Your task to perform on an android device: turn on wifi Image 0: 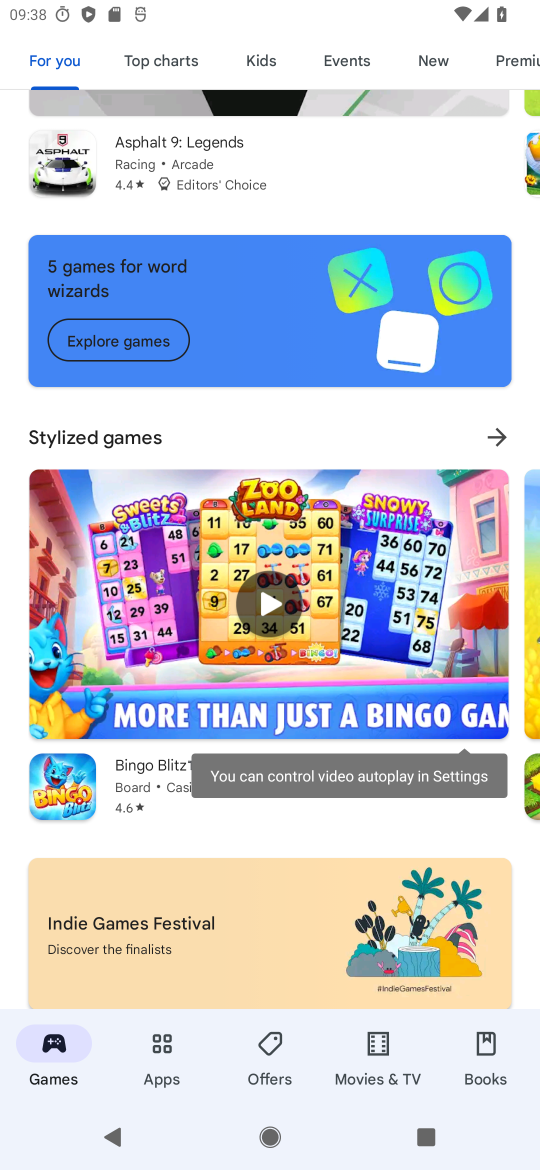
Step 0: press home button
Your task to perform on an android device: turn on wifi Image 1: 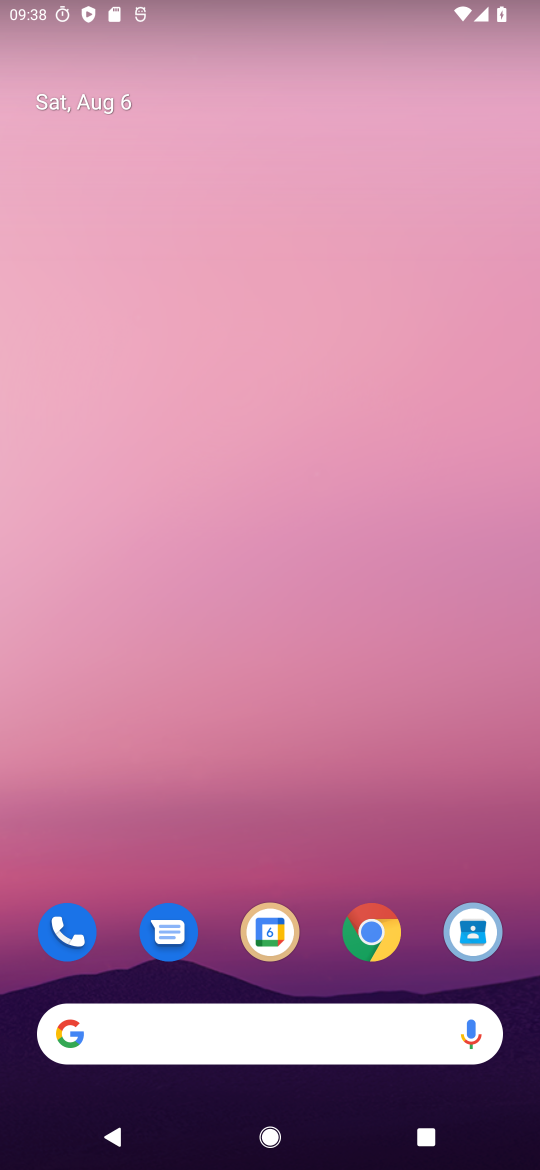
Step 1: drag from (166, 1033) to (382, 159)
Your task to perform on an android device: turn on wifi Image 2: 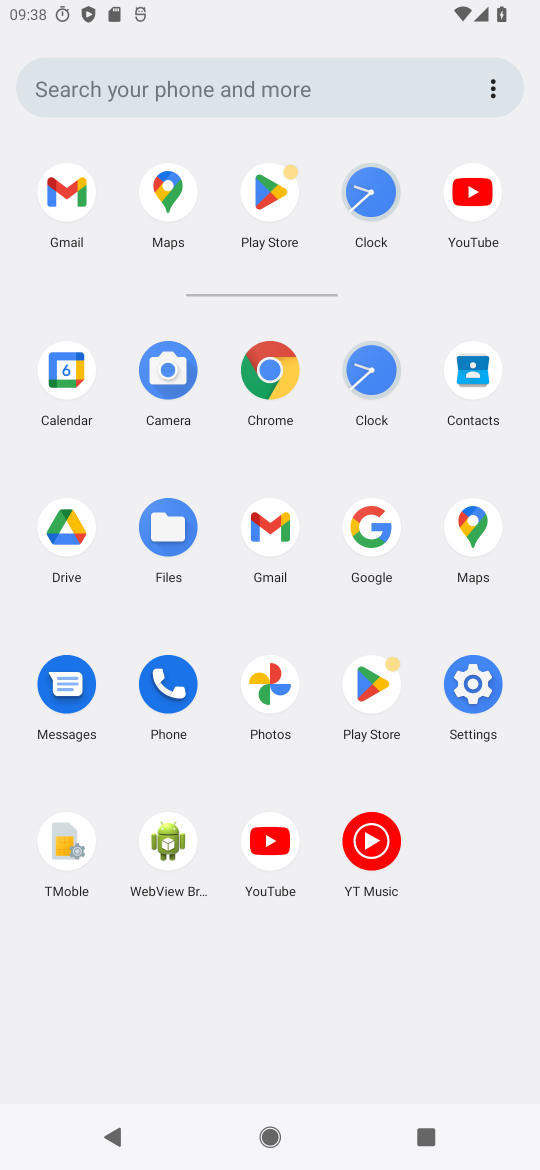
Step 2: click (468, 686)
Your task to perform on an android device: turn on wifi Image 3: 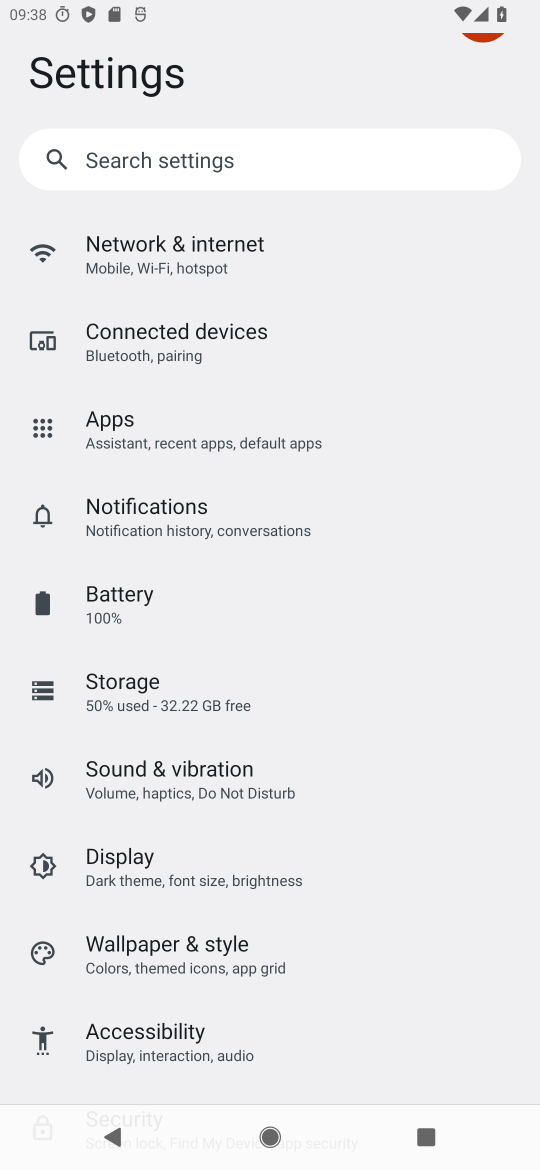
Step 3: click (251, 244)
Your task to perform on an android device: turn on wifi Image 4: 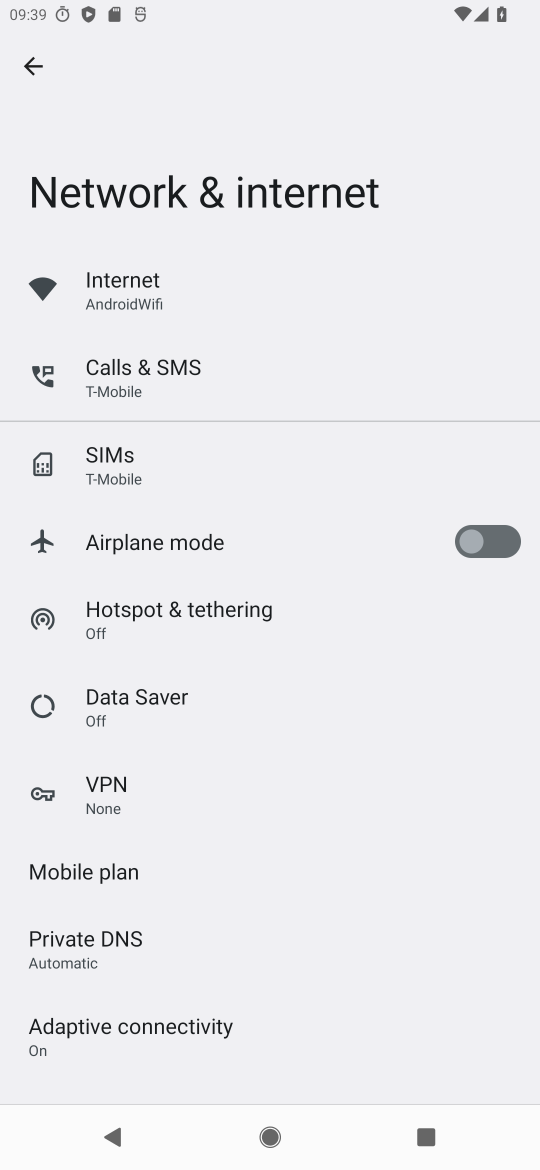
Step 4: click (184, 291)
Your task to perform on an android device: turn on wifi Image 5: 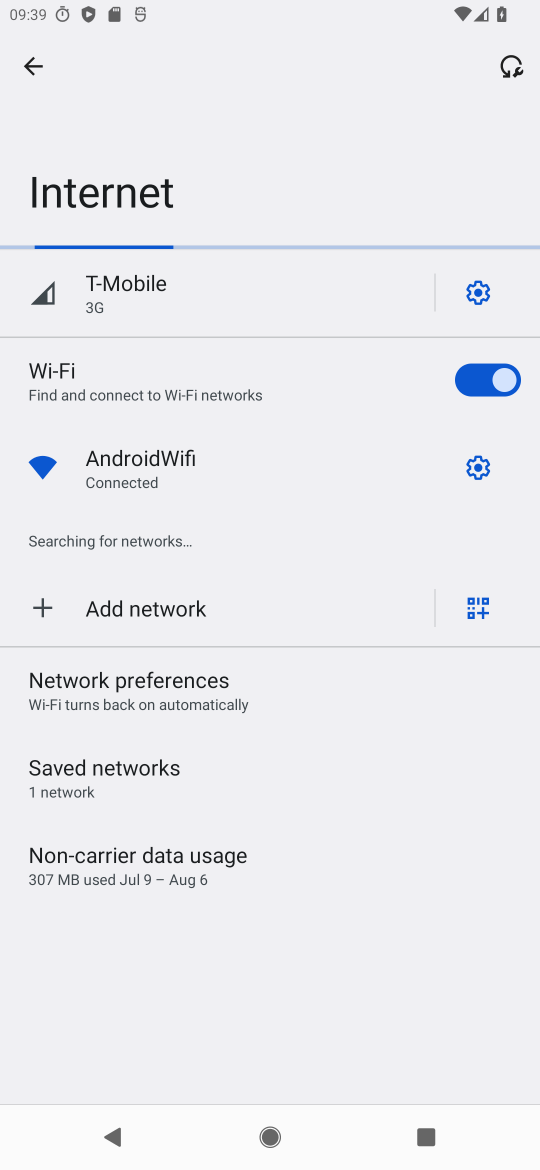
Step 5: task complete